Your task to perform on an android device: check the backup settings in the google photos Image 0: 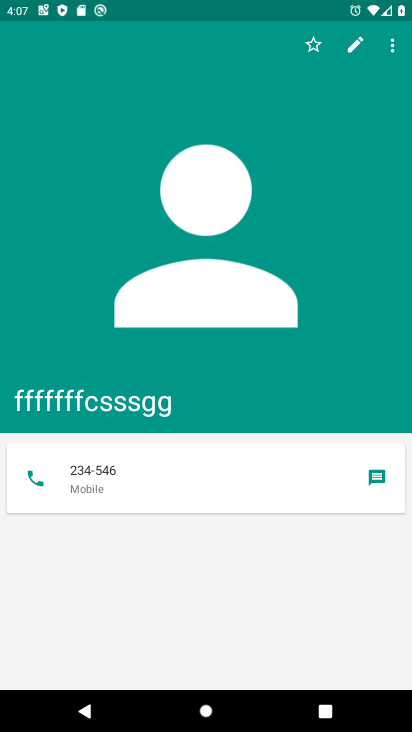
Step 0: press home button
Your task to perform on an android device: check the backup settings in the google photos Image 1: 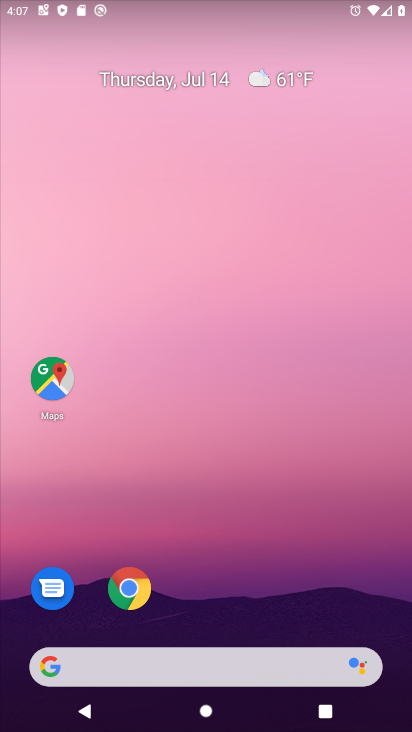
Step 1: drag from (256, 593) to (323, 8)
Your task to perform on an android device: check the backup settings in the google photos Image 2: 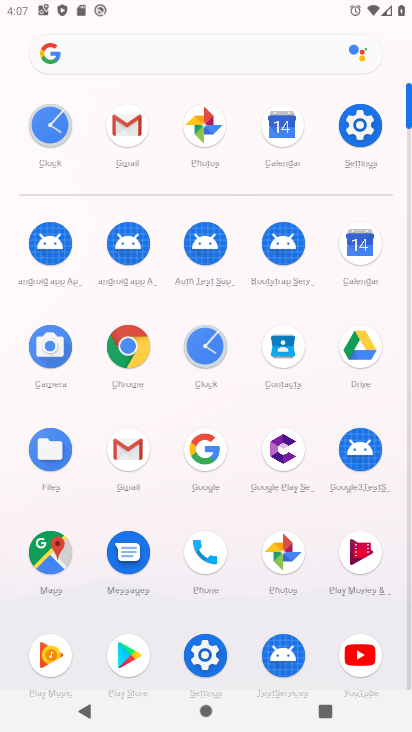
Step 2: click (277, 556)
Your task to perform on an android device: check the backup settings in the google photos Image 3: 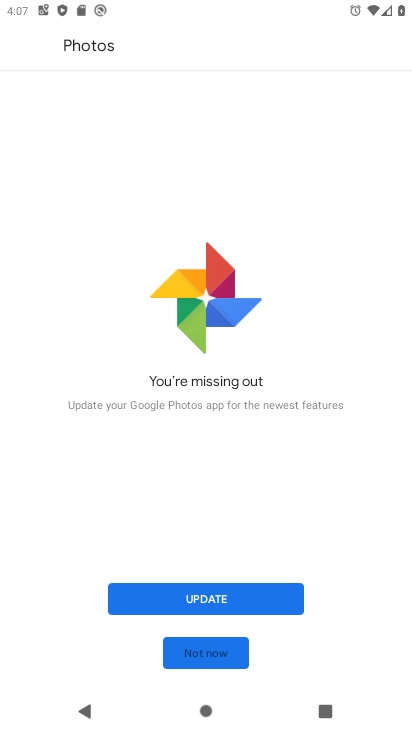
Step 3: click (220, 600)
Your task to perform on an android device: check the backup settings in the google photos Image 4: 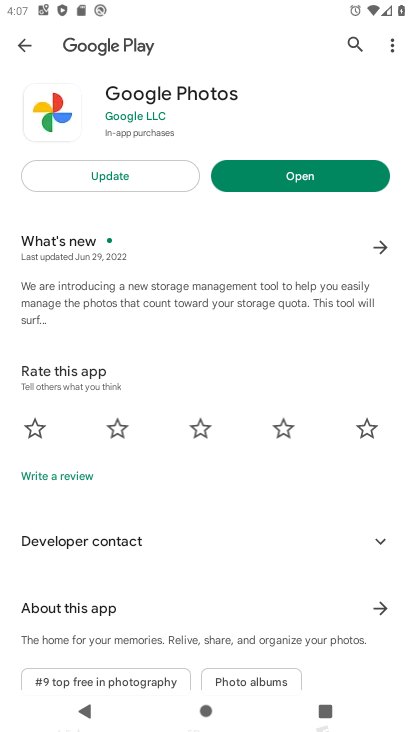
Step 4: click (131, 179)
Your task to perform on an android device: check the backup settings in the google photos Image 5: 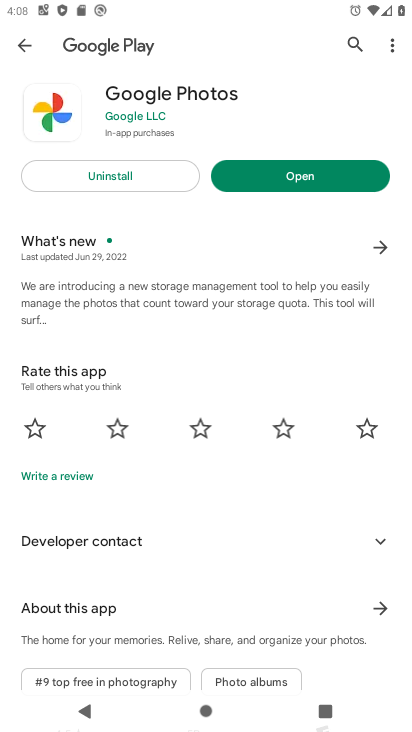
Step 5: click (311, 170)
Your task to perform on an android device: check the backup settings in the google photos Image 6: 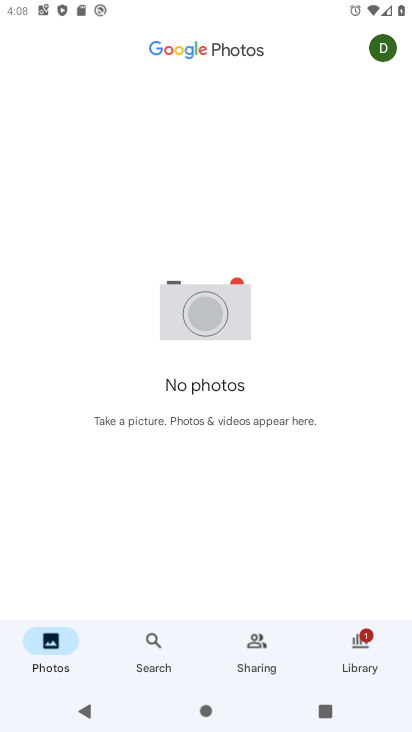
Step 6: click (385, 50)
Your task to perform on an android device: check the backup settings in the google photos Image 7: 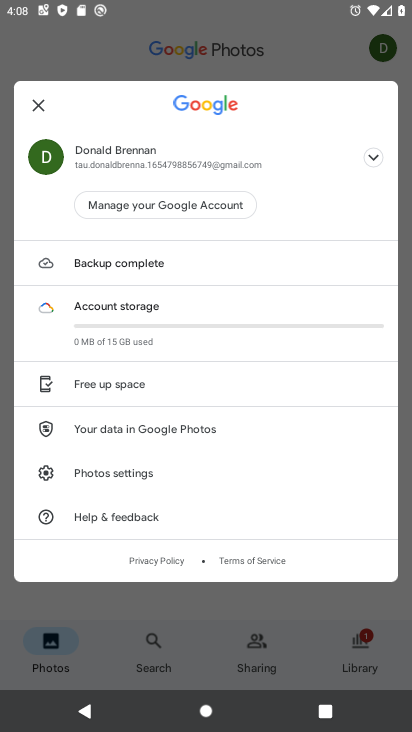
Step 7: click (125, 467)
Your task to perform on an android device: check the backup settings in the google photos Image 8: 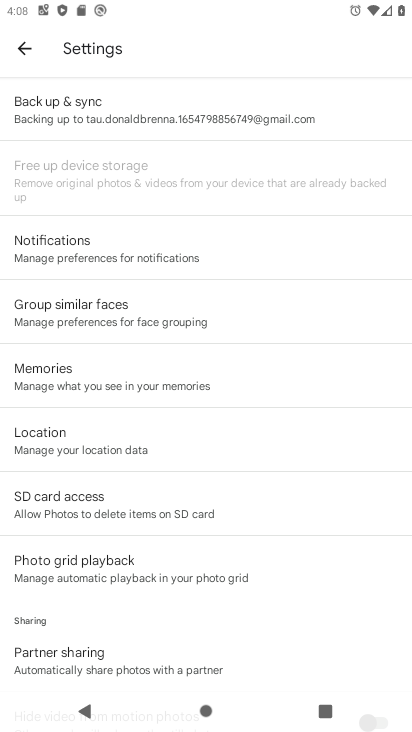
Step 8: click (81, 104)
Your task to perform on an android device: check the backup settings in the google photos Image 9: 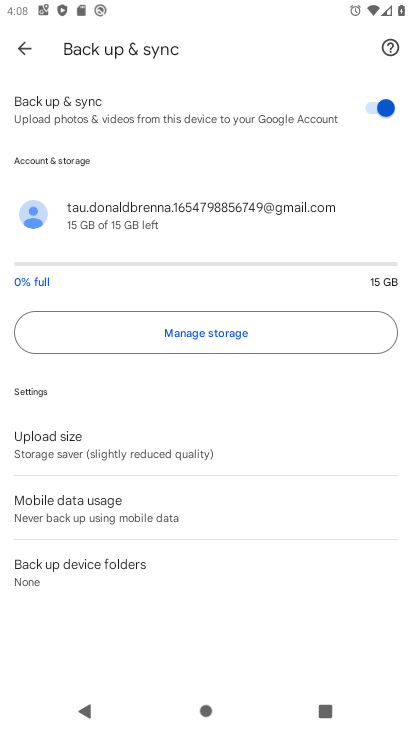
Step 9: task complete